Your task to perform on an android device: turn on airplane mode Image 0: 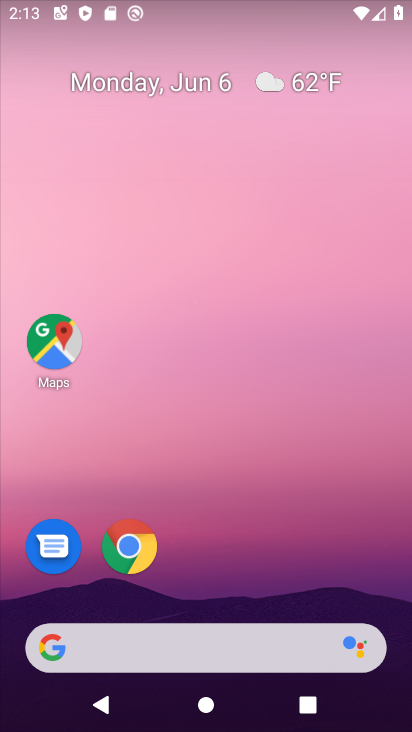
Step 0: drag from (310, 571) to (268, 122)
Your task to perform on an android device: turn on airplane mode Image 1: 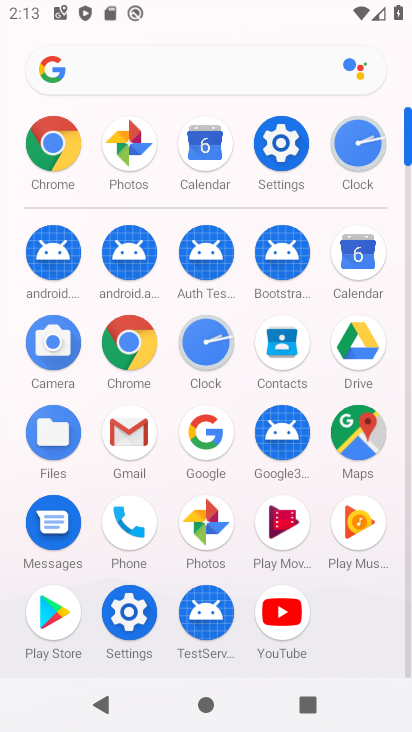
Step 1: click (277, 113)
Your task to perform on an android device: turn on airplane mode Image 2: 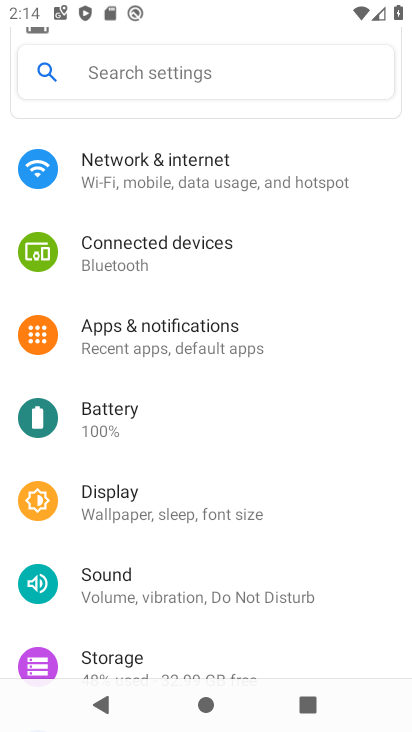
Step 2: click (215, 185)
Your task to perform on an android device: turn on airplane mode Image 3: 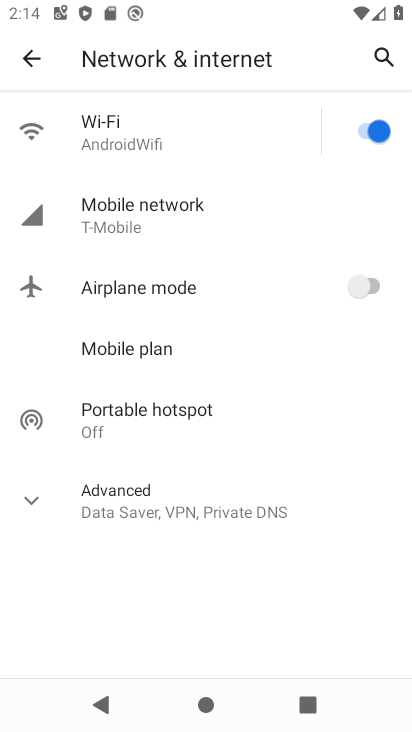
Step 3: click (356, 286)
Your task to perform on an android device: turn on airplane mode Image 4: 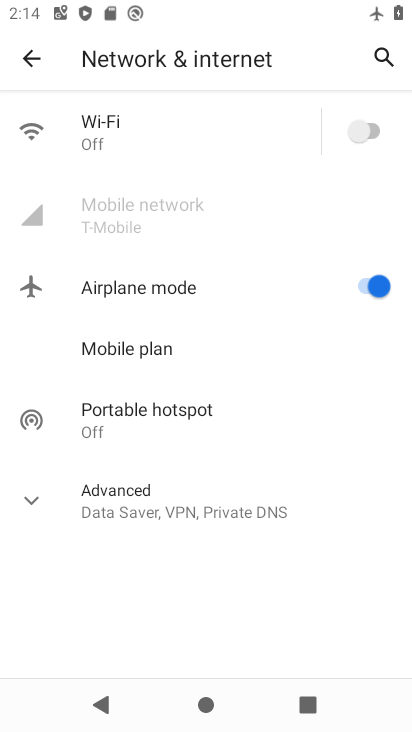
Step 4: task complete